Your task to perform on an android device: open app "DoorDash - Dasher" Image 0: 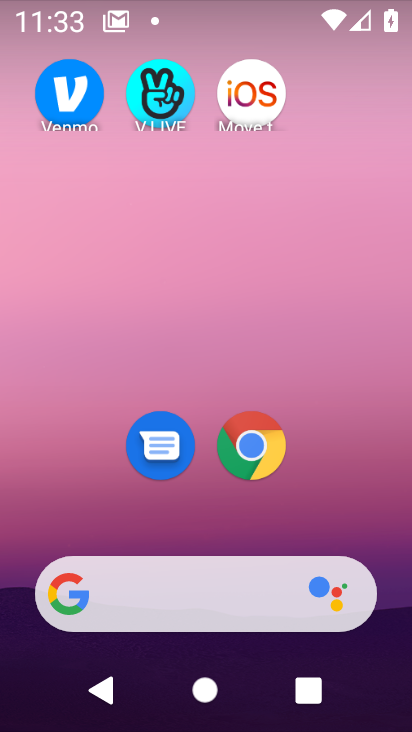
Step 0: drag from (226, 560) to (237, 158)
Your task to perform on an android device: open app "DoorDash - Dasher" Image 1: 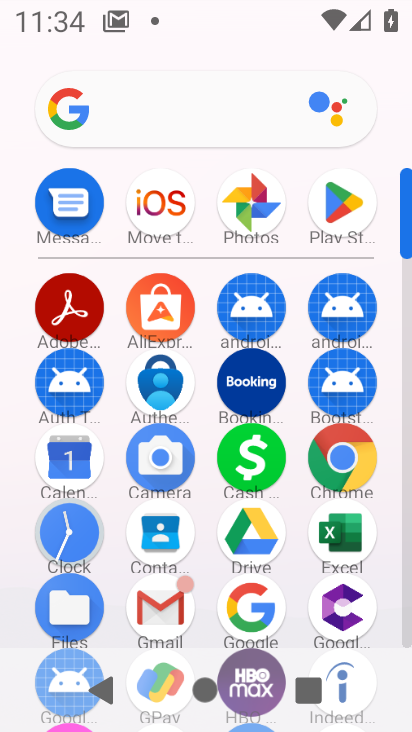
Step 1: click (342, 210)
Your task to perform on an android device: open app "DoorDash - Dasher" Image 2: 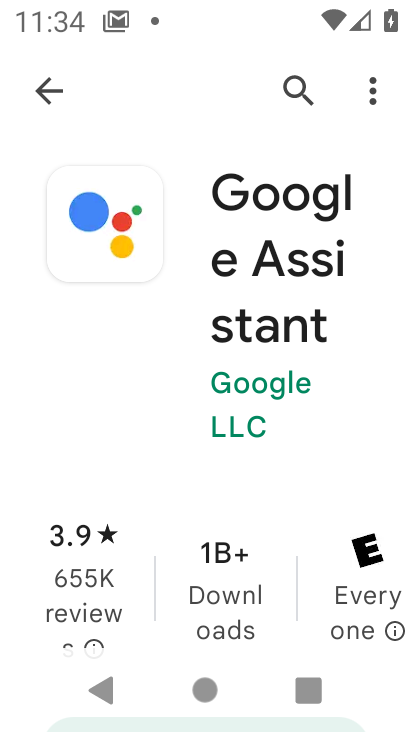
Step 2: click (43, 83)
Your task to perform on an android device: open app "DoorDash - Dasher" Image 3: 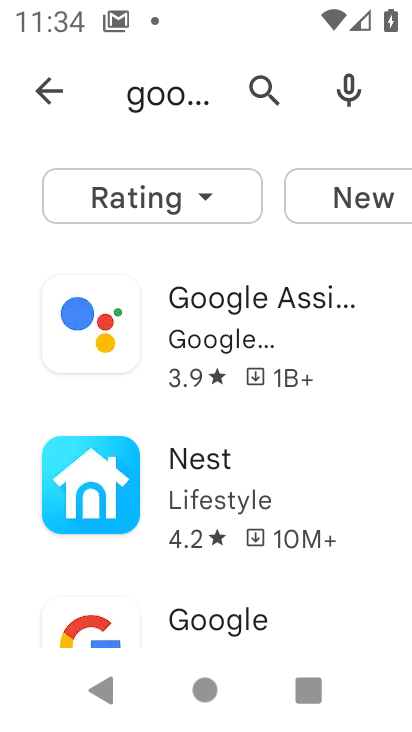
Step 3: click (44, 93)
Your task to perform on an android device: open app "DoorDash - Dasher" Image 4: 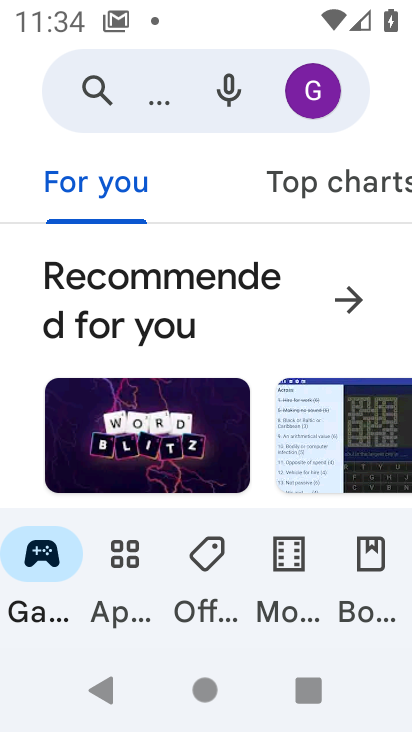
Step 4: click (99, 81)
Your task to perform on an android device: open app "DoorDash - Dasher" Image 5: 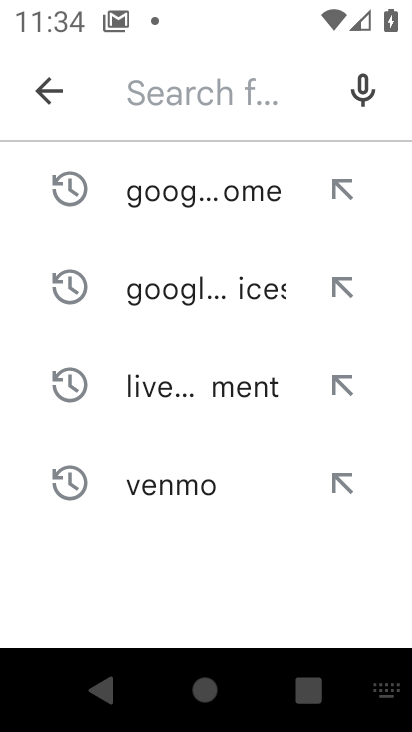
Step 5: type "DoorDash - Dasher"
Your task to perform on an android device: open app "DoorDash - Dasher" Image 6: 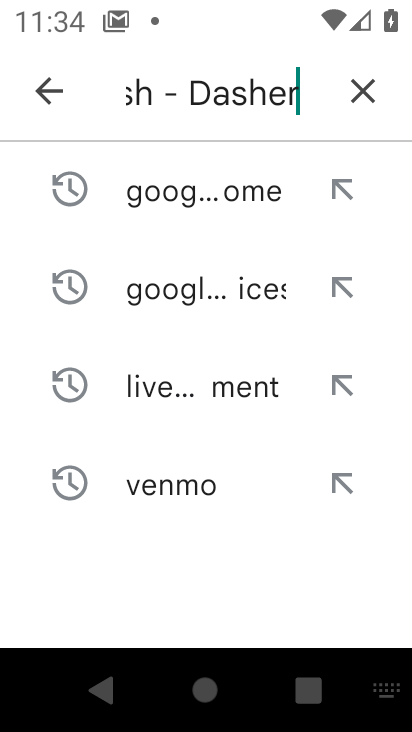
Step 6: type ""
Your task to perform on an android device: open app "DoorDash - Dasher" Image 7: 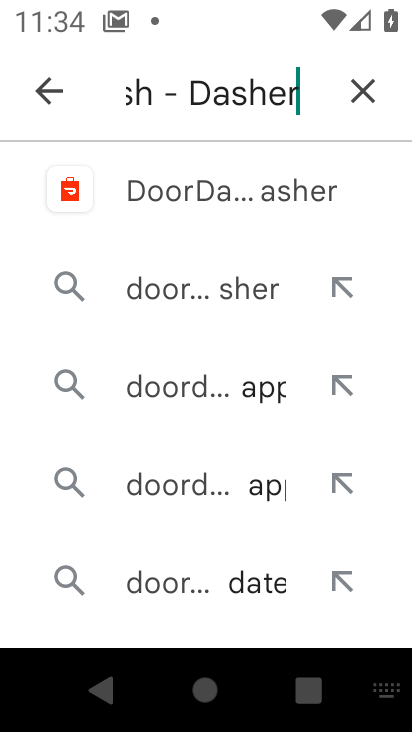
Step 7: click (237, 202)
Your task to perform on an android device: open app "DoorDash - Dasher" Image 8: 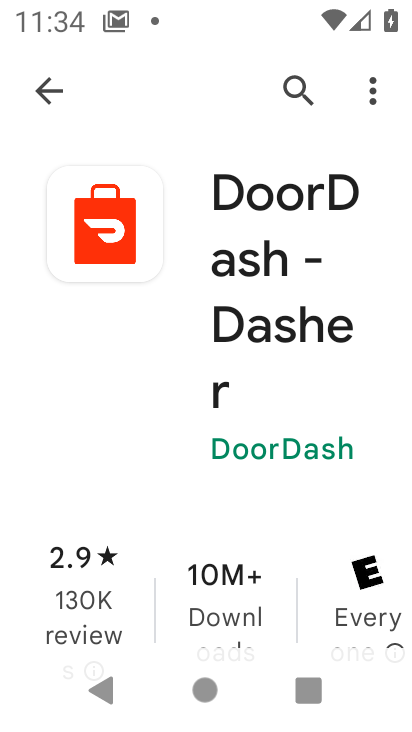
Step 8: task complete